Your task to perform on an android device: Open CNN.com Image 0: 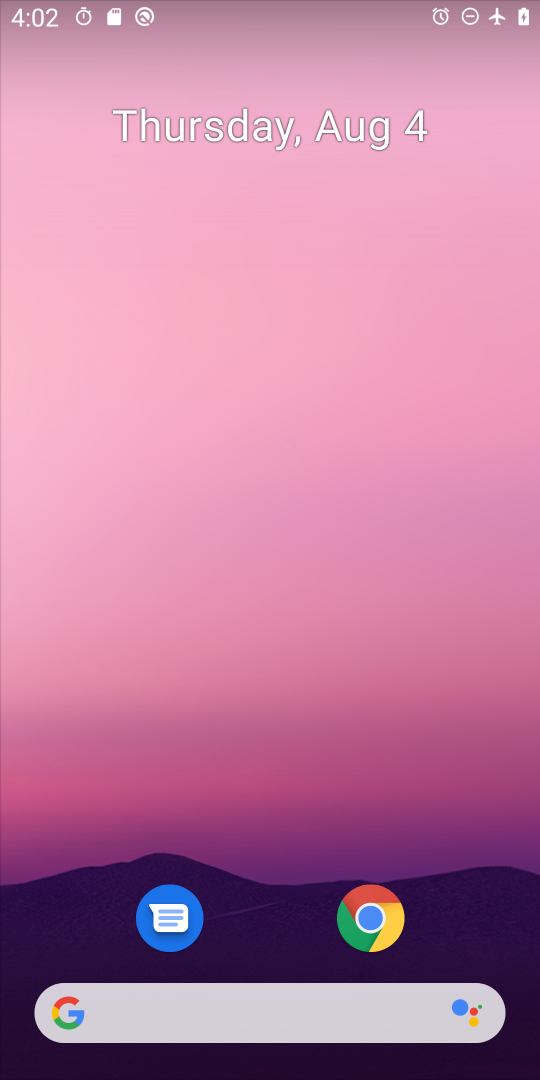
Step 0: click (359, 897)
Your task to perform on an android device: Open CNN.com Image 1: 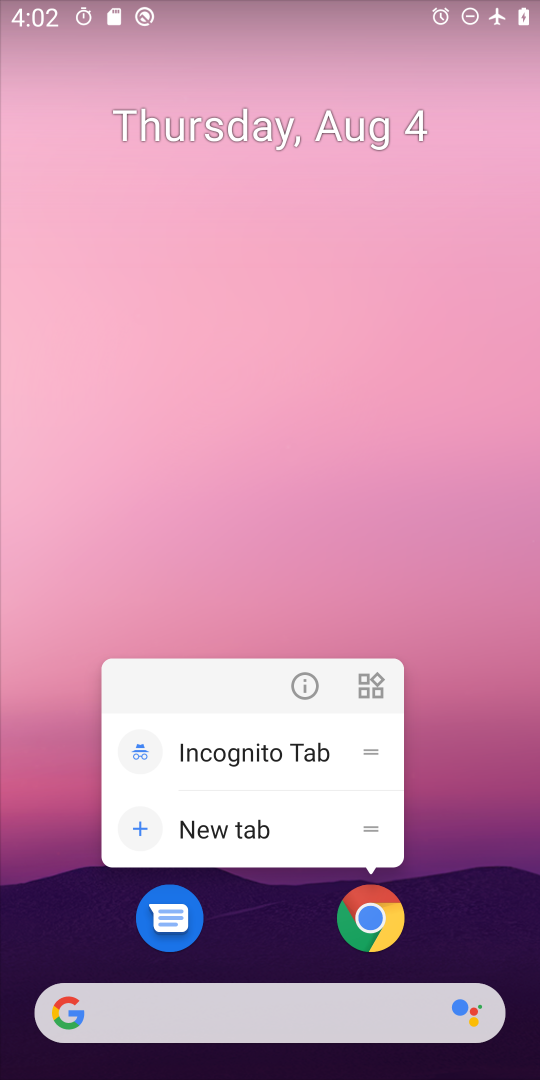
Step 1: click (359, 897)
Your task to perform on an android device: Open CNN.com Image 2: 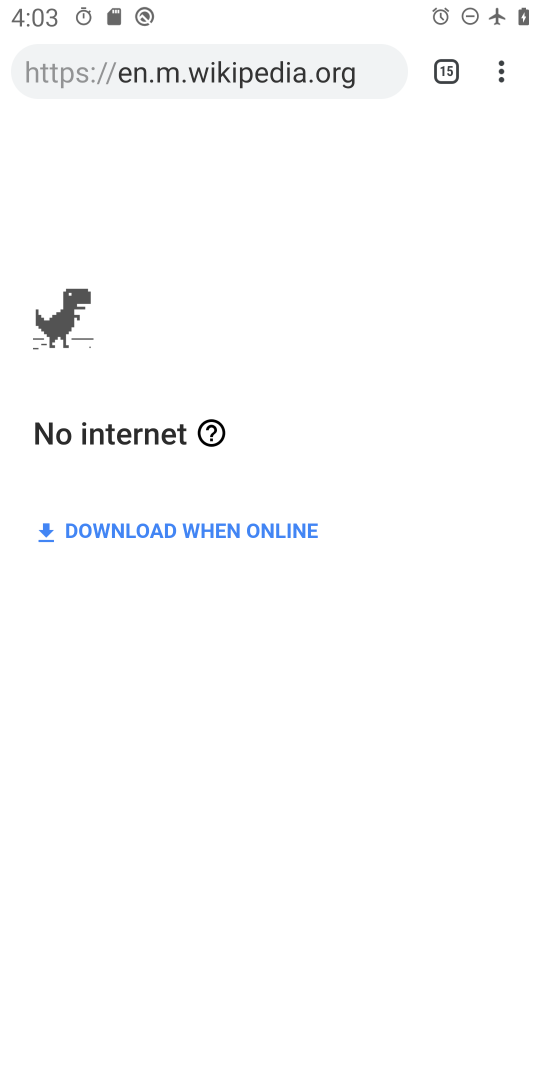
Step 2: task complete